Your task to perform on an android device: open a new tab in the chrome app Image 0: 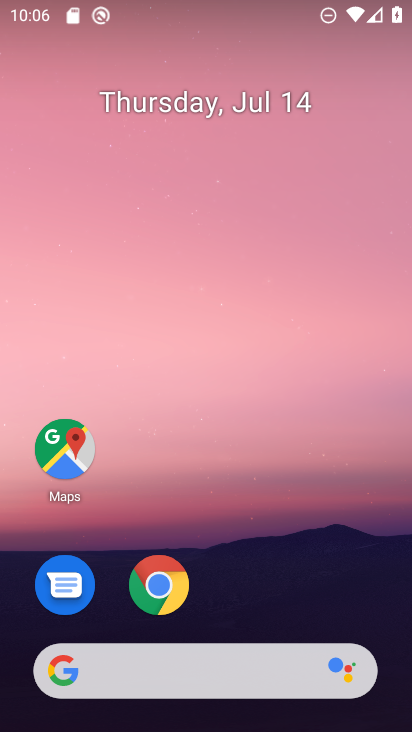
Step 0: click (178, 595)
Your task to perform on an android device: open a new tab in the chrome app Image 1: 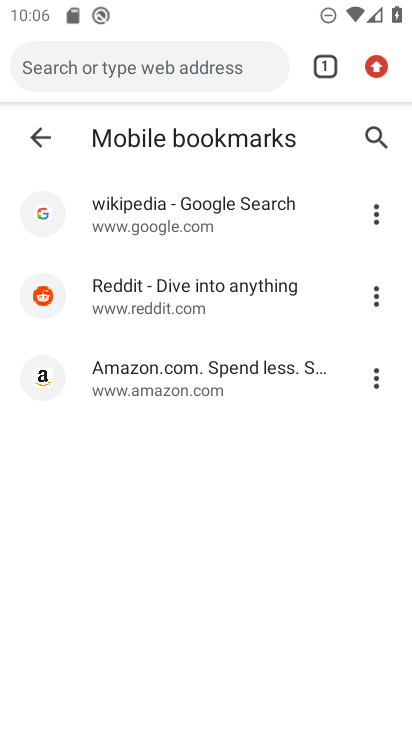
Step 1: click (320, 68)
Your task to perform on an android device: open a new tab in the chrome app Image 2: 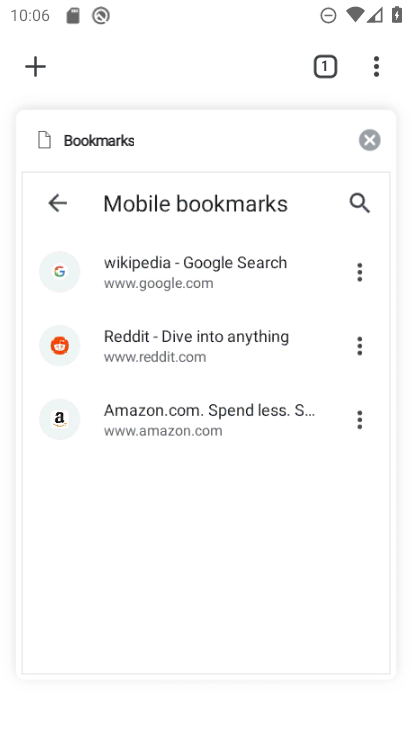
Step 2: click (39, 62)
Your task to perform on an android device: open a new tab in the chrome app Image 3: 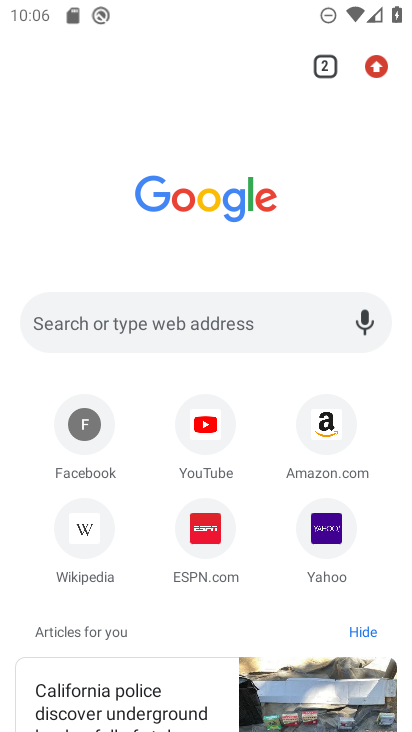
Step 3: task complete